Your task to perform on an android device: Search for Italian restaurants on Maps Image 0: 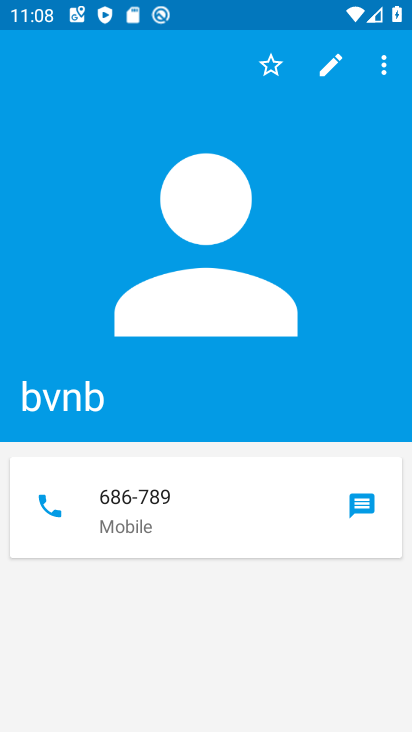
Step 0: press home button
Your task to perform on an android device: Search for Italian restaurants on Maps Image 1: 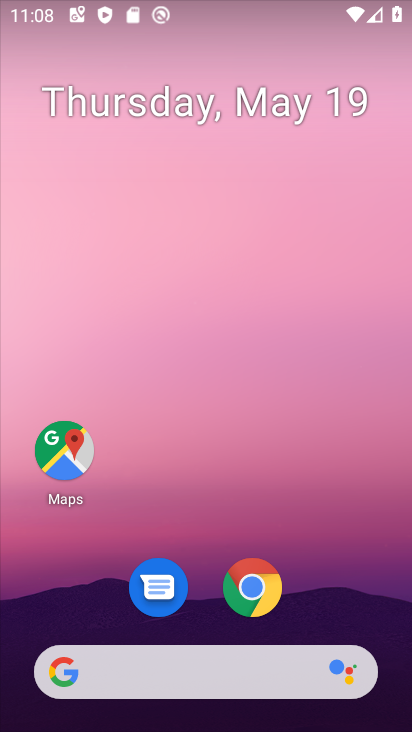
Step 1: click (58, 453)
Your task to perform on an android device: Search for Italian restaurants on Maps Image 2: 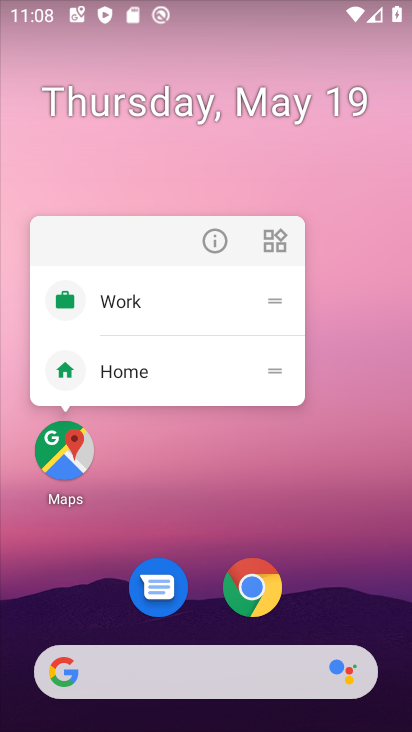
Step 2: click (70, 452)
Your task to perform on an android device: Search for Italian restaurants on Maps Image 3: 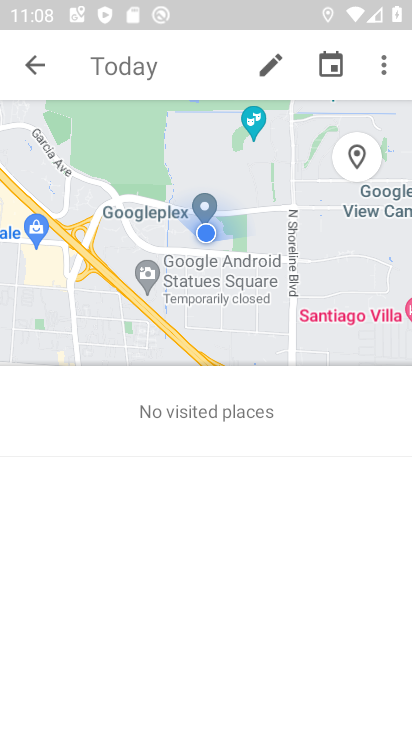
Step 3: click (40, 91)
Your task to perform on an android device: Search for Italian restaurants on Maps Image 4: 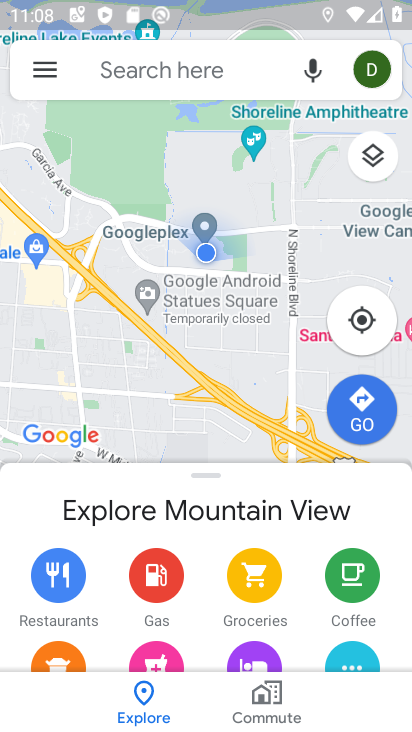
Step 4: click (173, 63)
Your task to perform on an android device: Search for Italian restaurants on Maps Image 5: 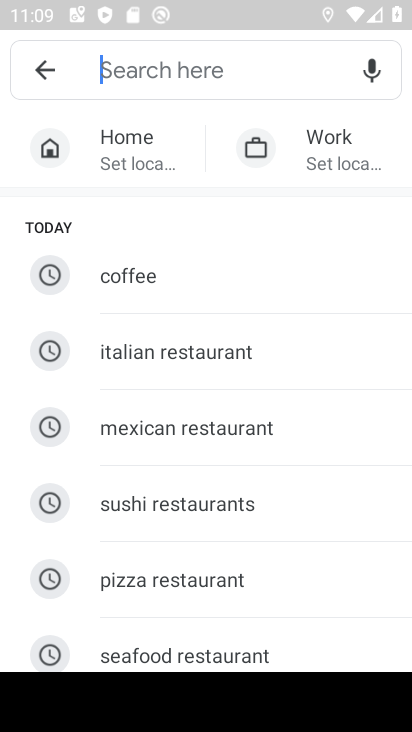
Step 5: click (200, 351)
Your task to perform on an android device: Search for Italian restaurants on Maps Image 6: 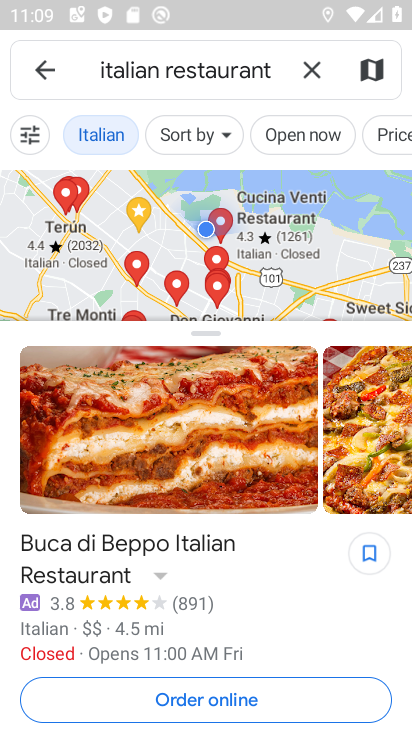
Step 6: task complete